Your task to perform on an android device: Open display settings Image 0: 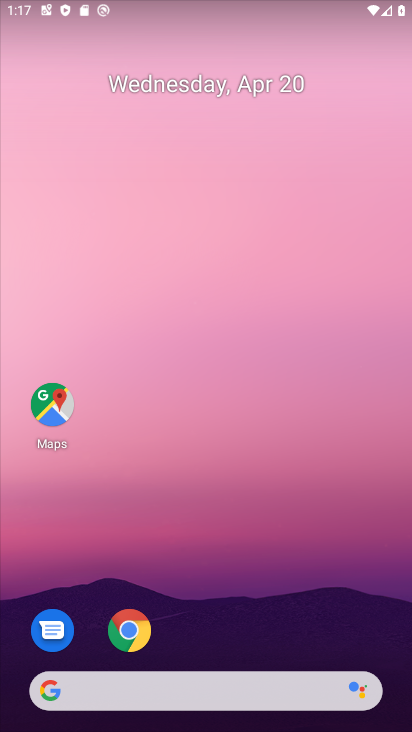
Step 0: click (364, 184)
Your task to perform on an android device: Open display settings Image 1: 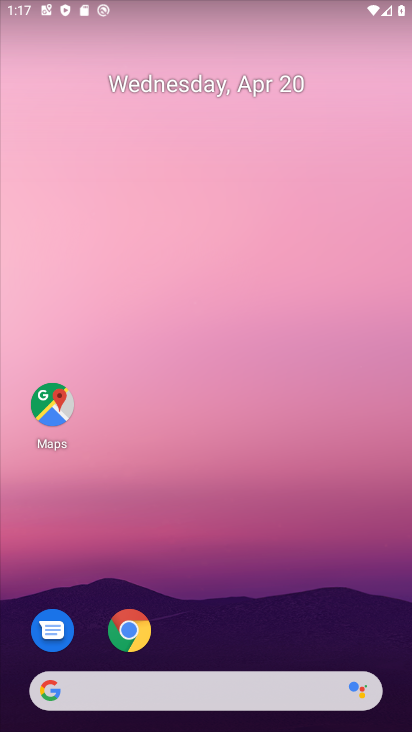
Step 1: drag from (399, 647) to (334, 194)
Your task to perform on an android device: Open display settings Image 2: 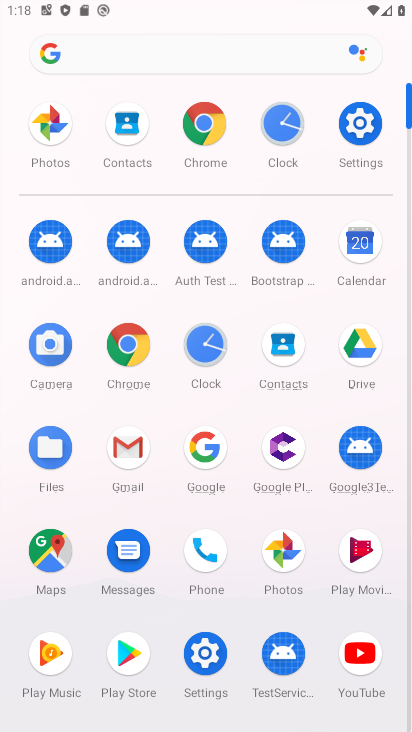
Step 2: click (354, 132)
Your task to perform on an android device: Open display settings Image 3: 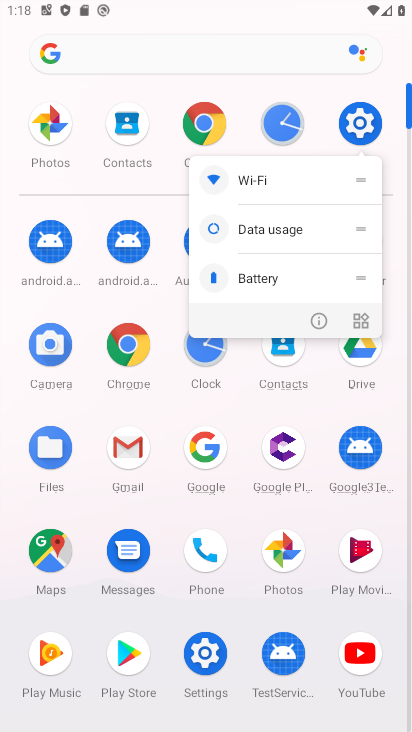
Step 3: click (371, 132)
Your task to perform on an android device: Open display settings Image 4: 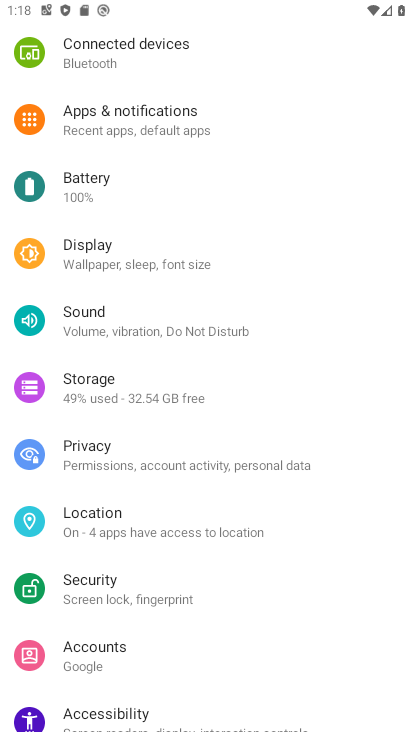
Step 4: click (120, 251)
Your task to perform on an android device: Open display settings Image 5: 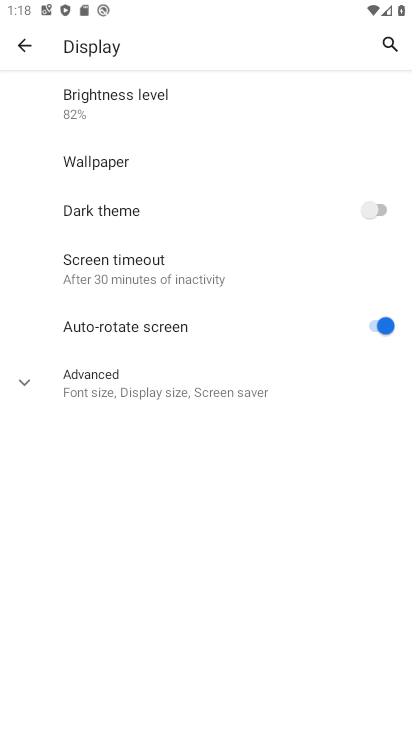
Step 5: task complete